Your task to perform on an android device: uninstall "VLC for Android" Image 0: 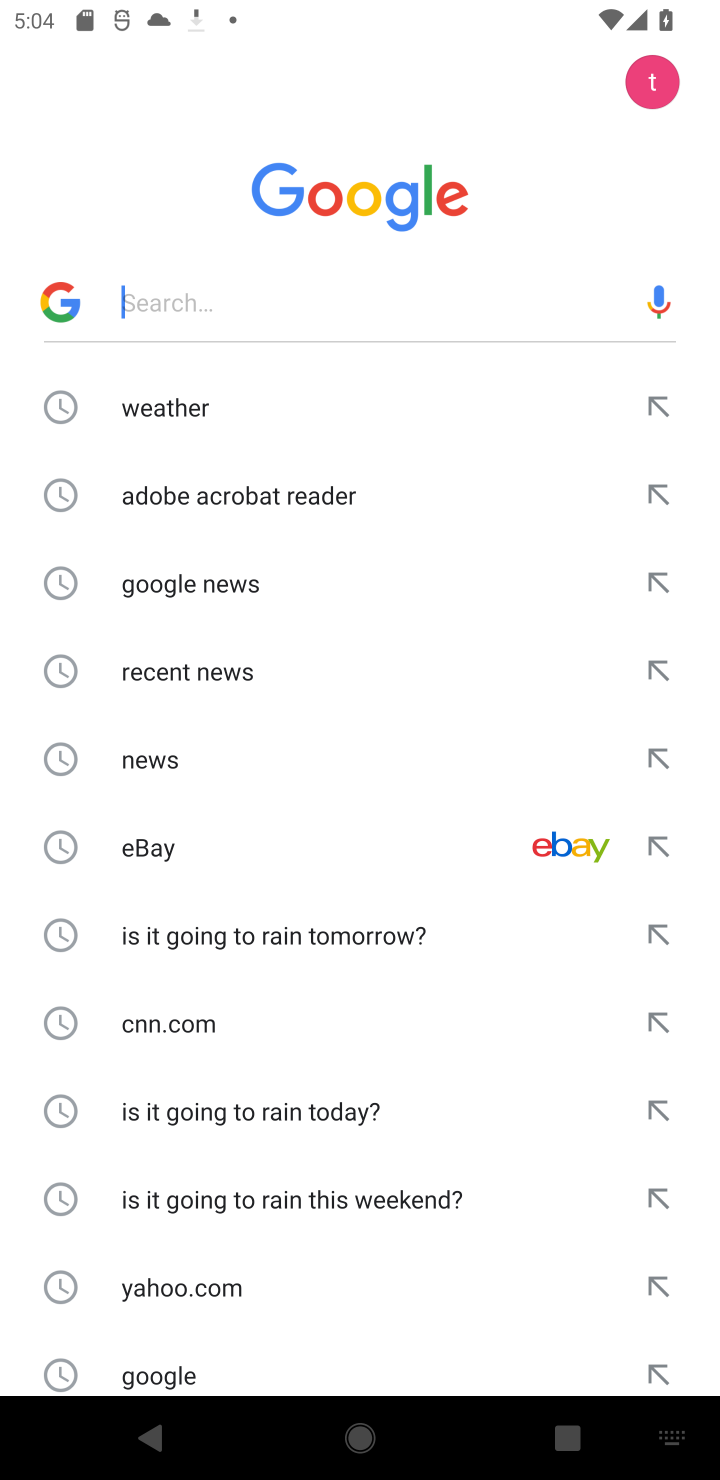
Step 0: press home button
Your task to perform on an android device: uninstall "VLC for Android" Image 1: 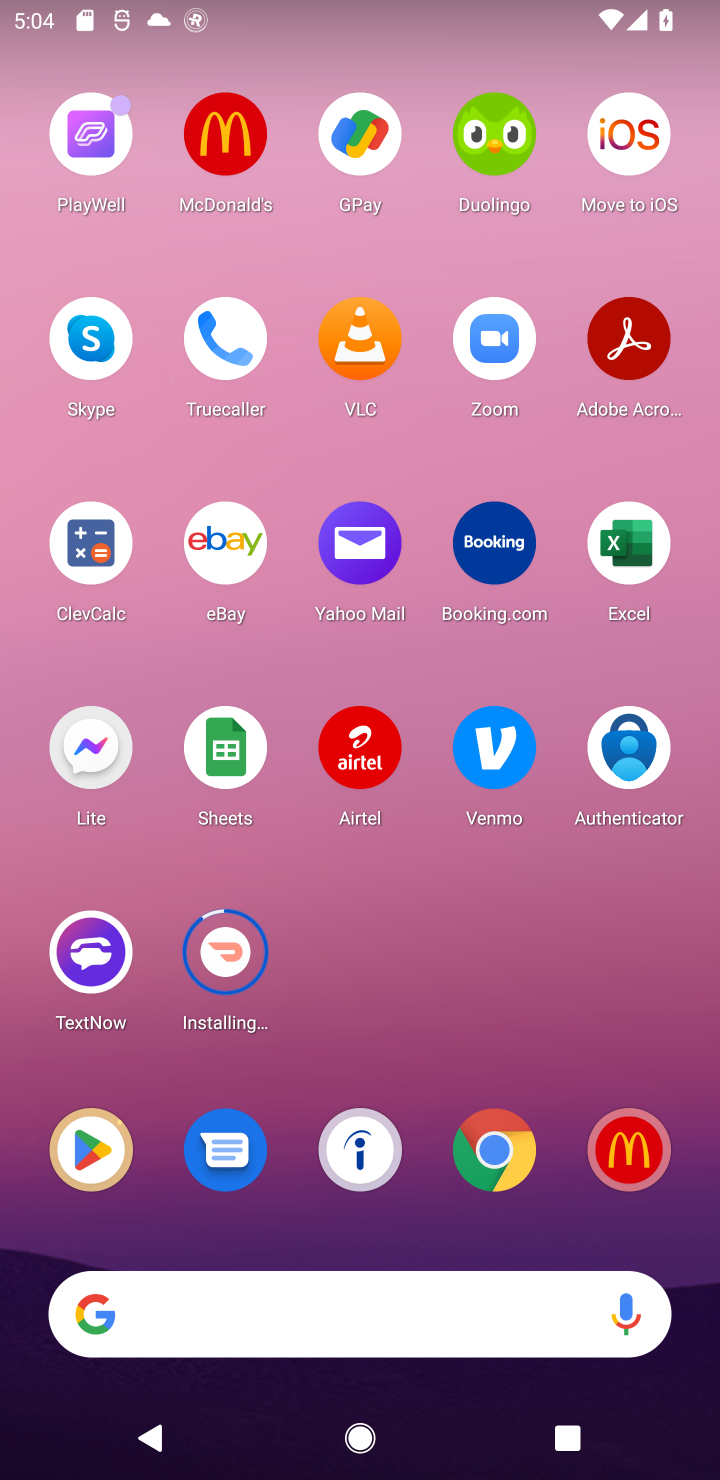
Step 1: click (454, 993)
Your task to perform on an android device: uninstall "VLC for Android" Image 2: 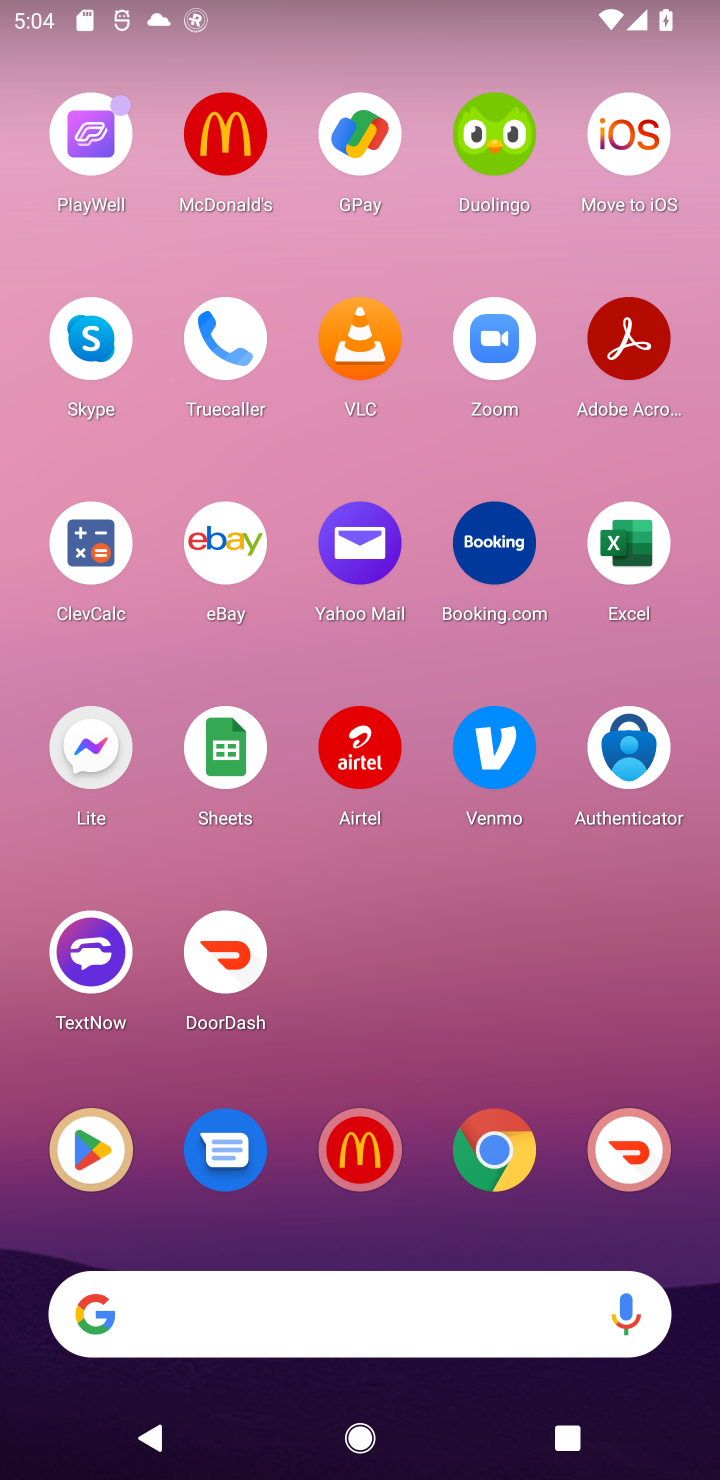
Step 2: click (378, 340)
Your task to perform on an android device: uninstall "VLC for Android" Image 3: 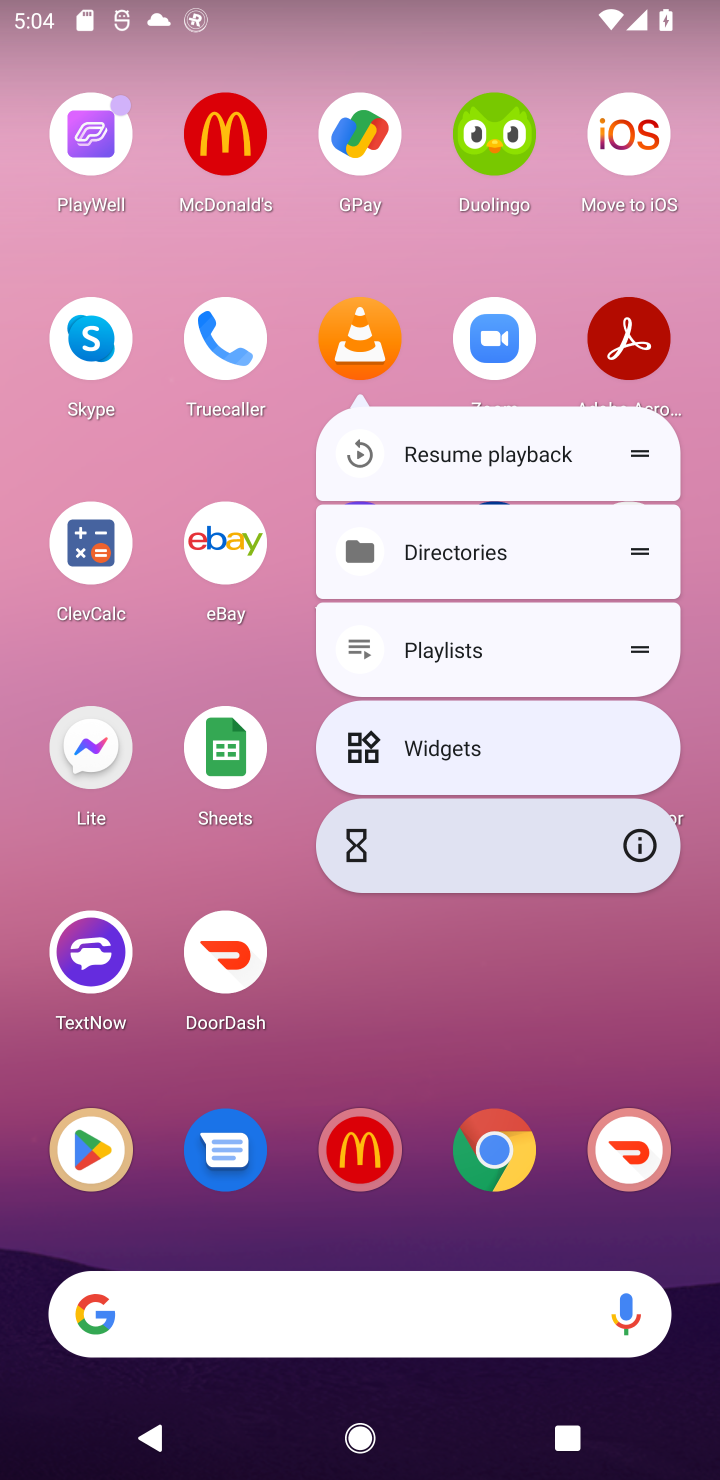
Step 3: click (626, 840)
Your task to perform on an android device: uninstall "VLC for Android" Image 4: 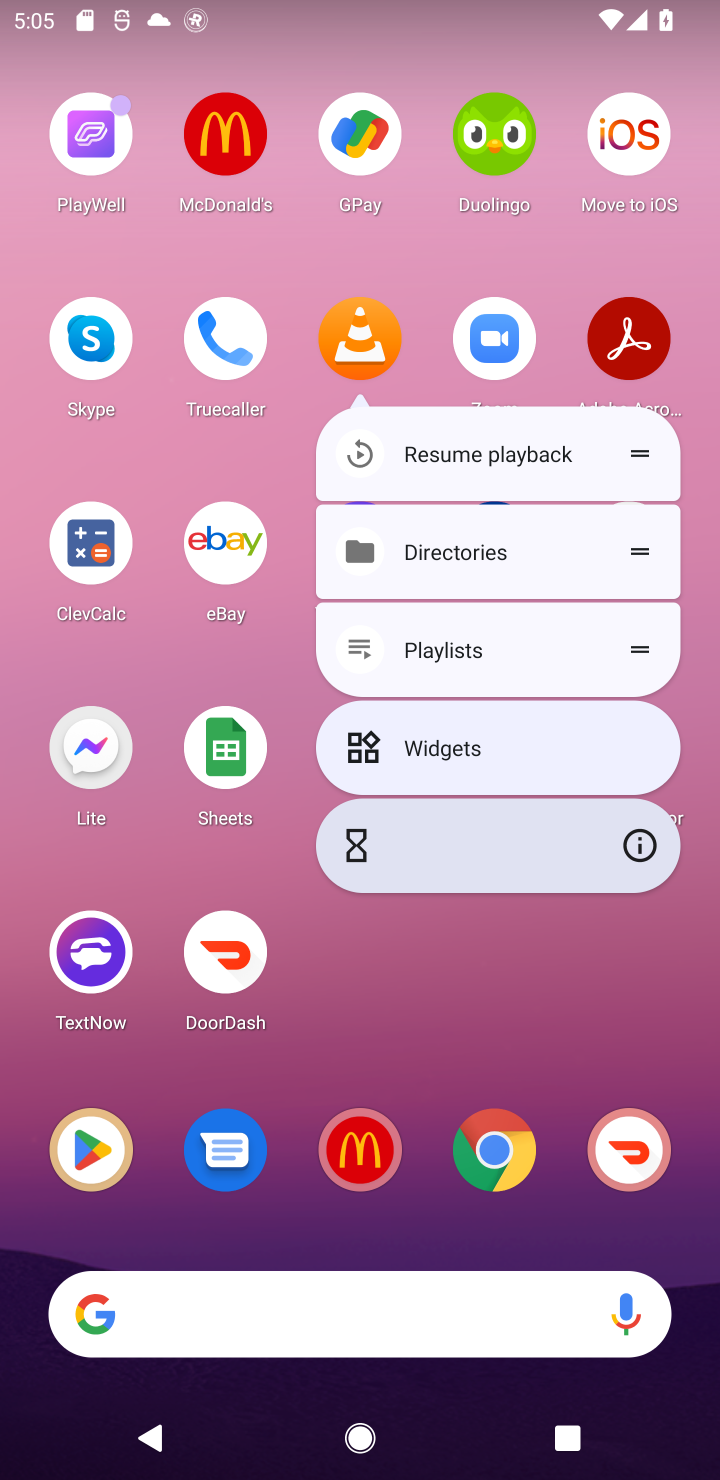
Step 4: click (626, 840)
Your task to perform on an android device: uninstall "VLC for Android" Image 5: 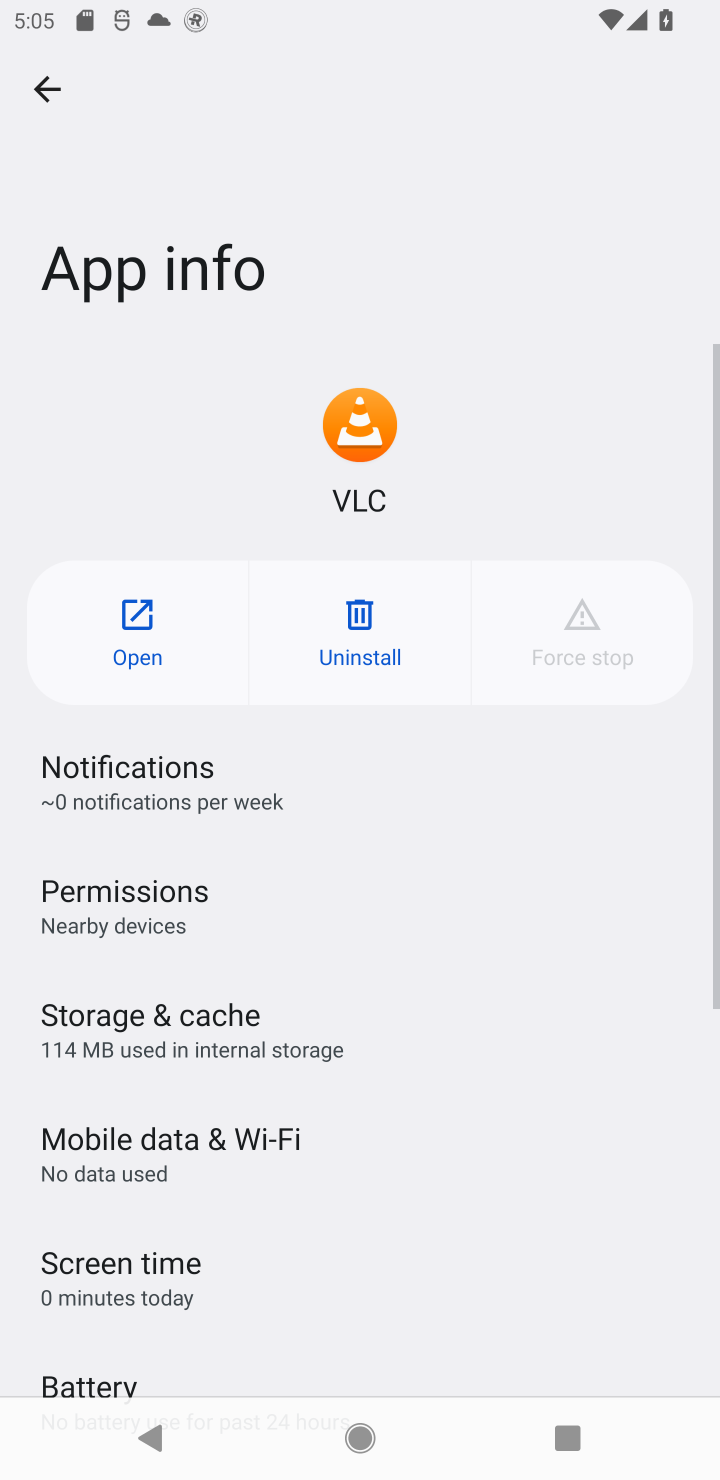
Step 5: click (347, 610)
Your task to perform on an android device: uninstall "VLC for Android" Image 6: 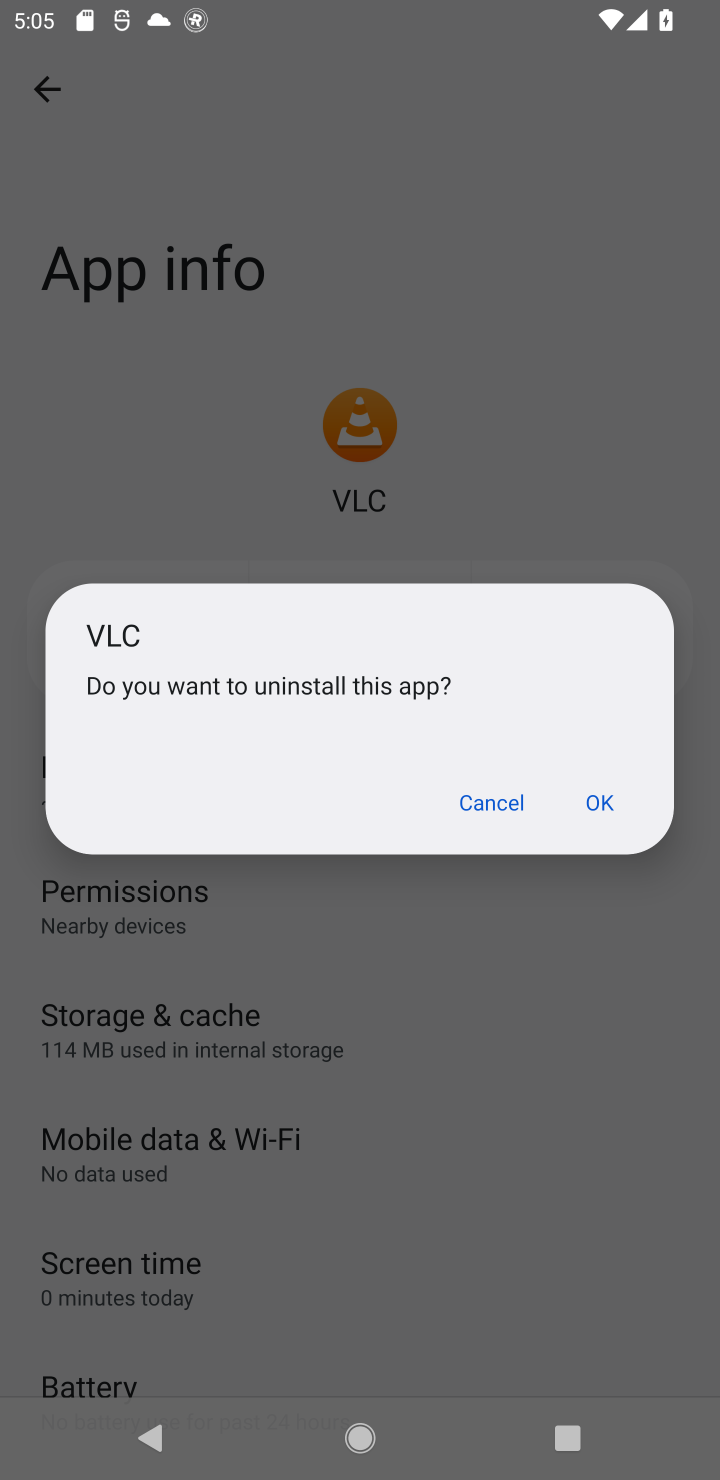
Step 6: click (587, 827)
Your task to perform on an android device: uninstall "VLC for Android" Image 7: 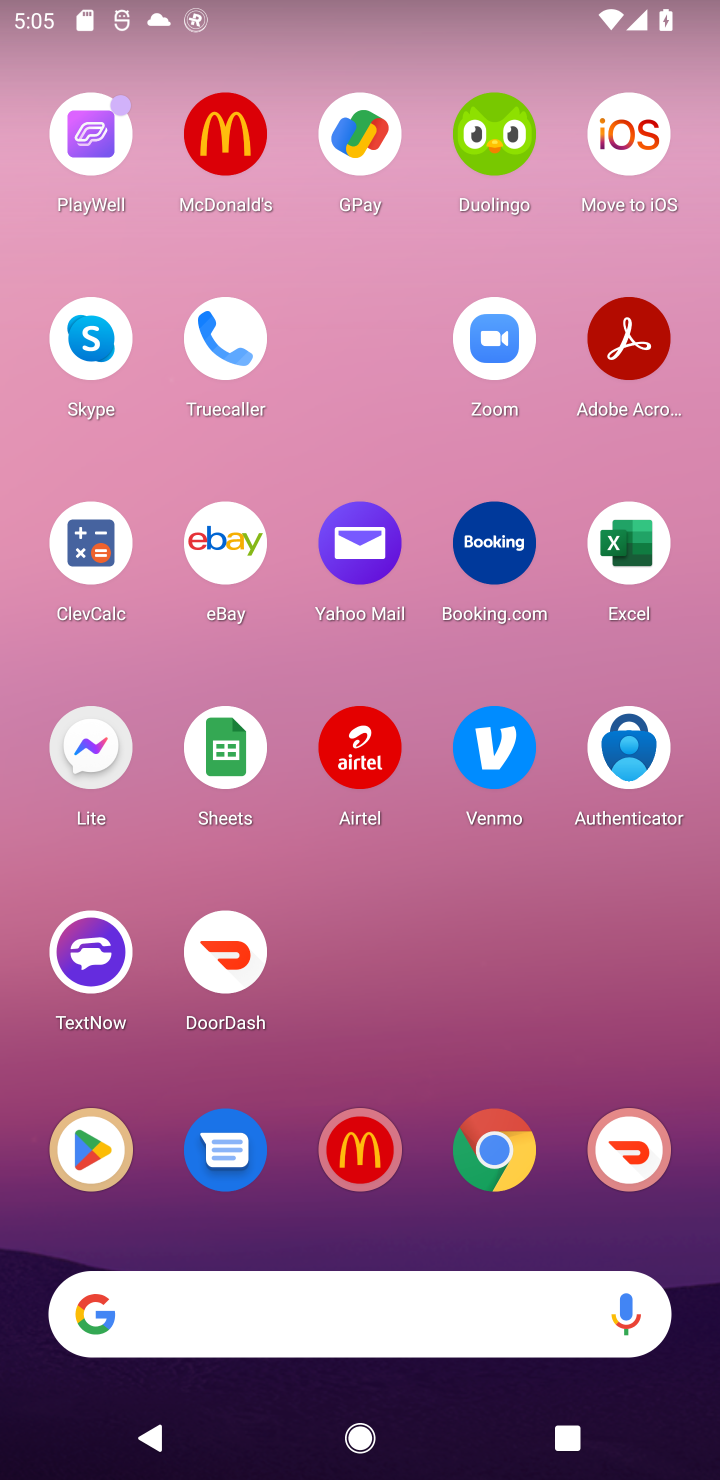
Step 7: task complete